Your task to perform on an android device: Open battery settings Image 0: 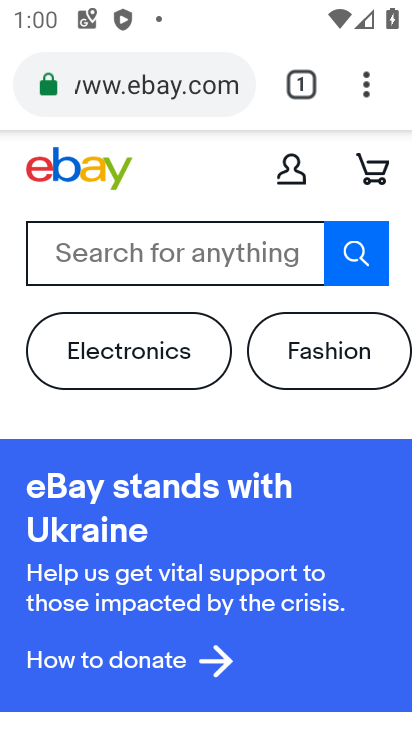
Step 0: press home button
Your task to perform on an android device: Open battery settings Image 1: 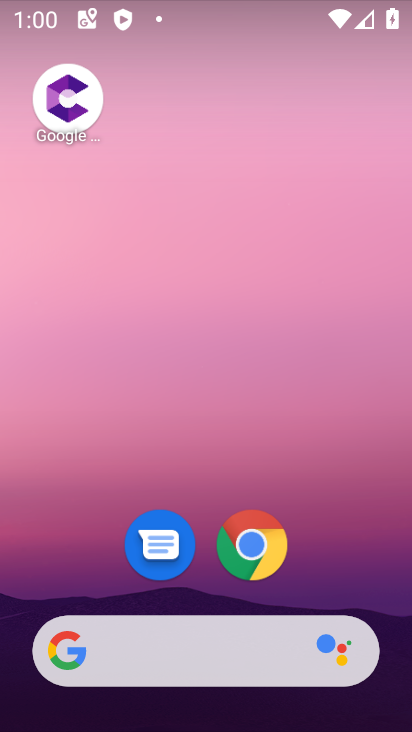
Step 1: drag from (337, 522) to (342, 16)
Your task to perform on an android device: Open battery settings Image 2: 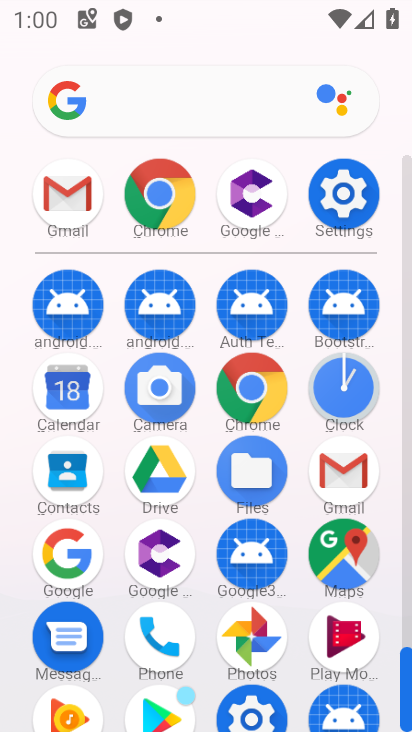
Step 2: click (346, 192)
Your task to perform on an android device: Open battery settings Image 3: 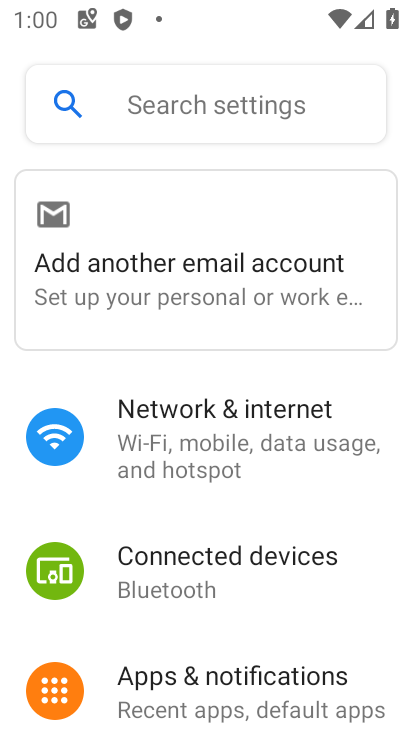
Step 3: drag from (253, 596) to (233, 211)
Your task to perform on an android device: Open battery settings Image 4: 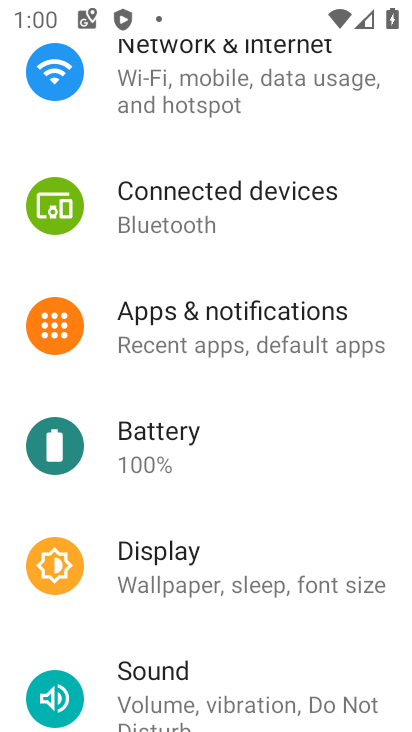
Step 4: click (206, 442)
Your task to perform on an android device: Open battery settings Image 5: 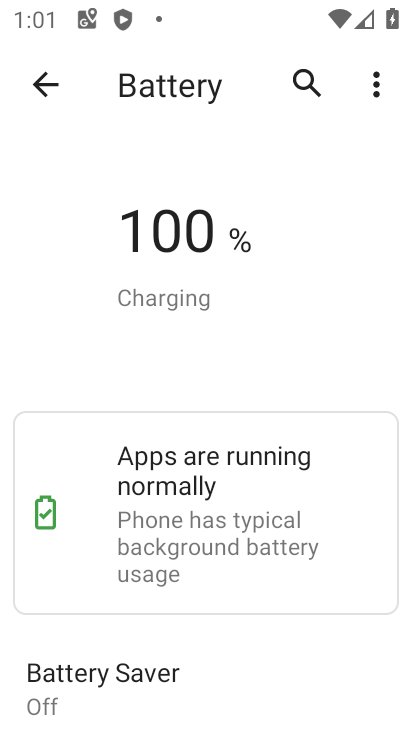
Step 5: task complete